Your task to perform on an android device: open app "Spotify: Music and Podcasts" (install if not already installed) and go to login screen Image 0: 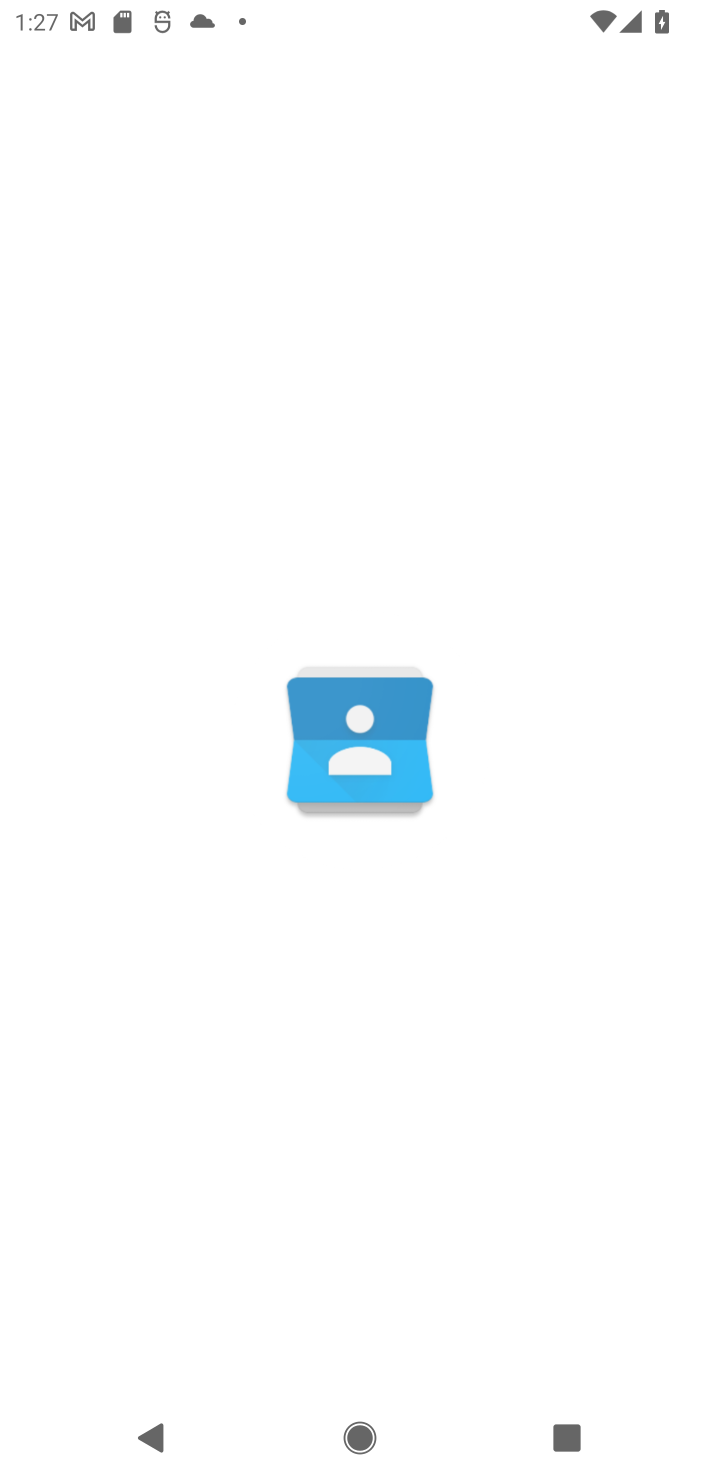
Step 0: press home button
Your task to perform on an android device: open app "Spotify: Music and Podcasts" (install if not already installed) and go to login screen Image 1: 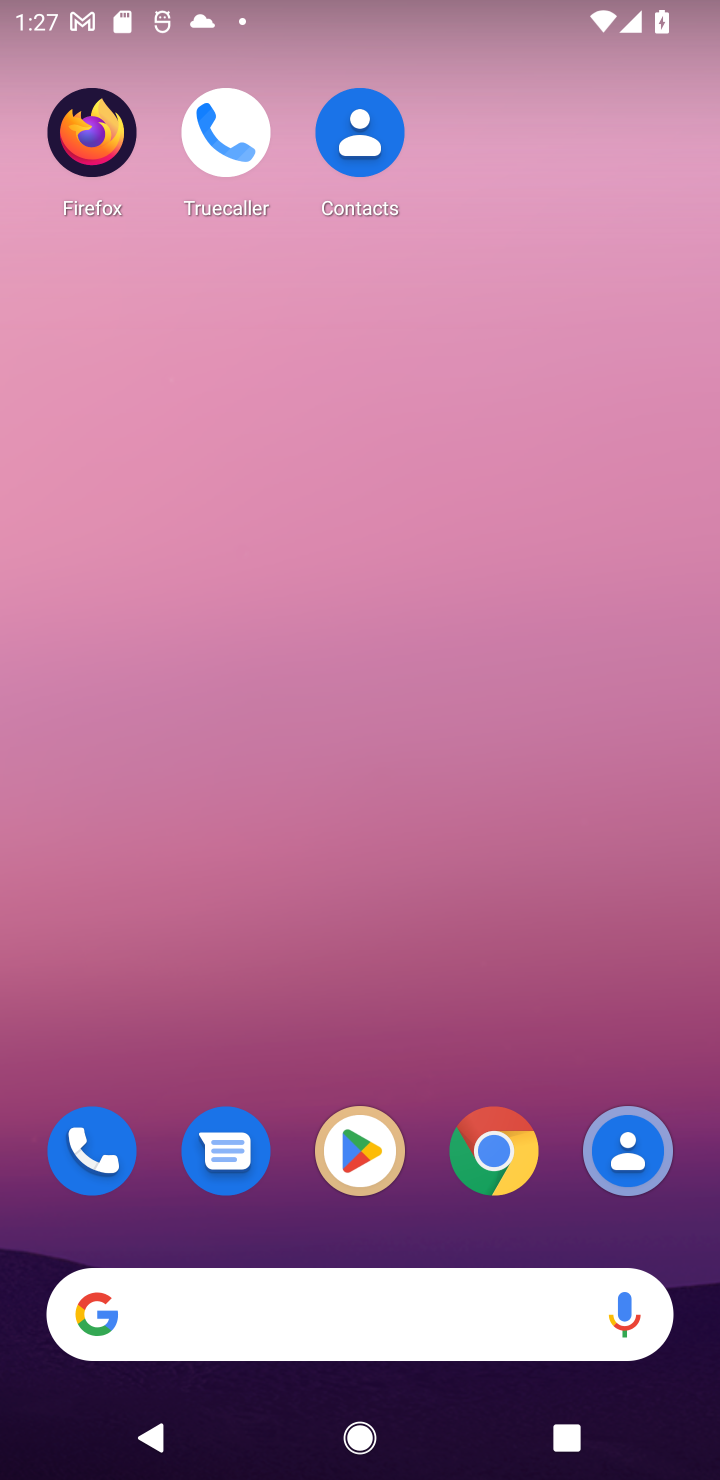
Step 1: click (341, 1138)
Your task to perform on an android device: open app "Spotify: Music and Podcasts" (install if not already installed) and go to login screen Image 2: 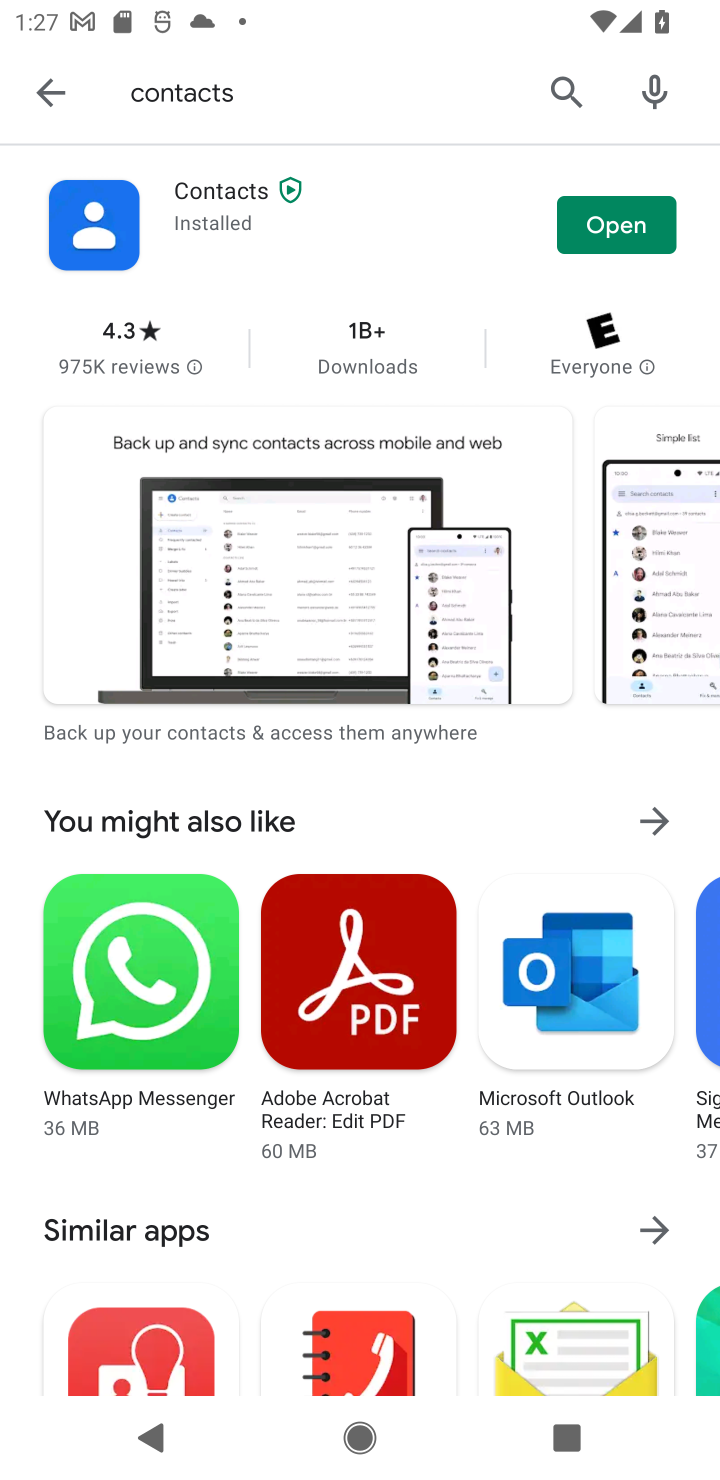
Step 2: click (44, 86)
Your task to perform on an android device: open app "Spotify: Music and Podcasts" (install if not already installed) and go to login screen Image 3: 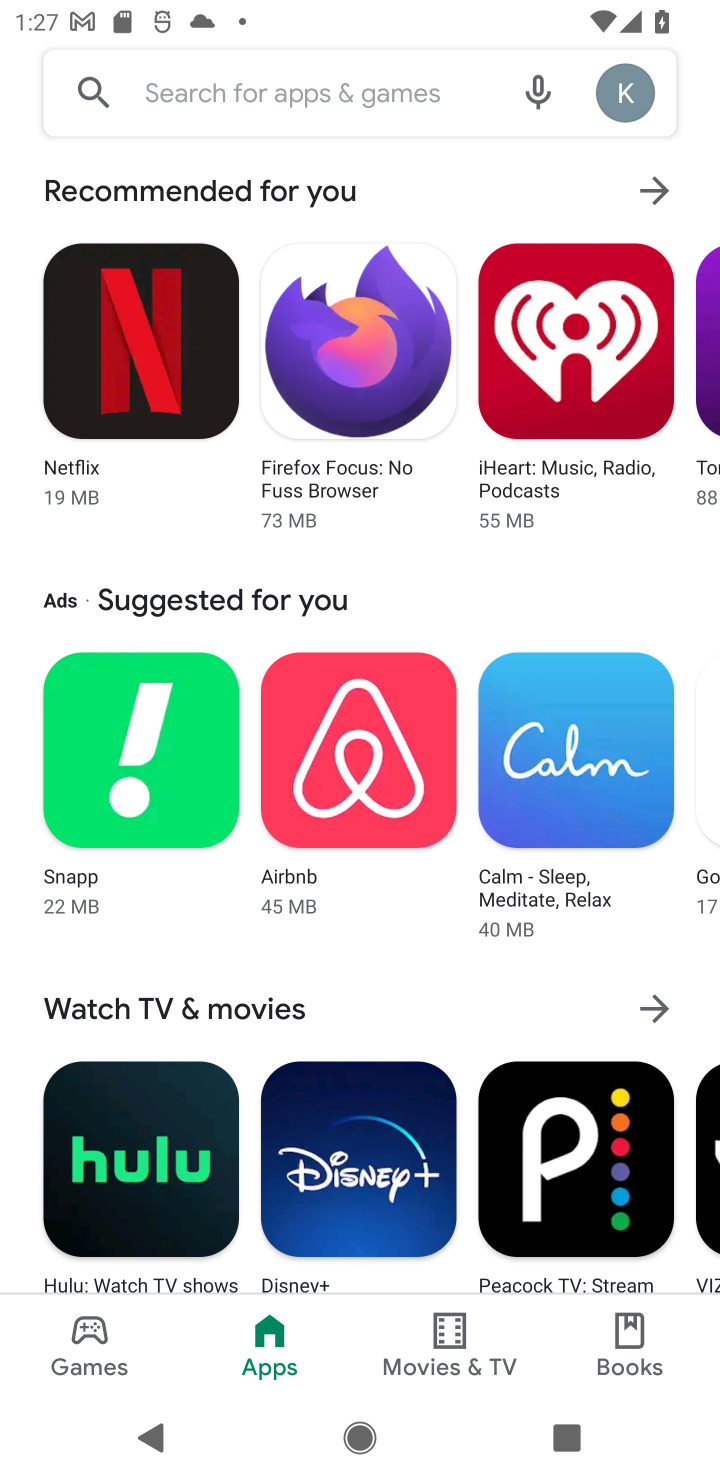
Step 3: click (332, 68)
Your task to perform on an android device: open app "Spotify: Music and Podcasts" (install if not already installed) and go to login screen Image 4: 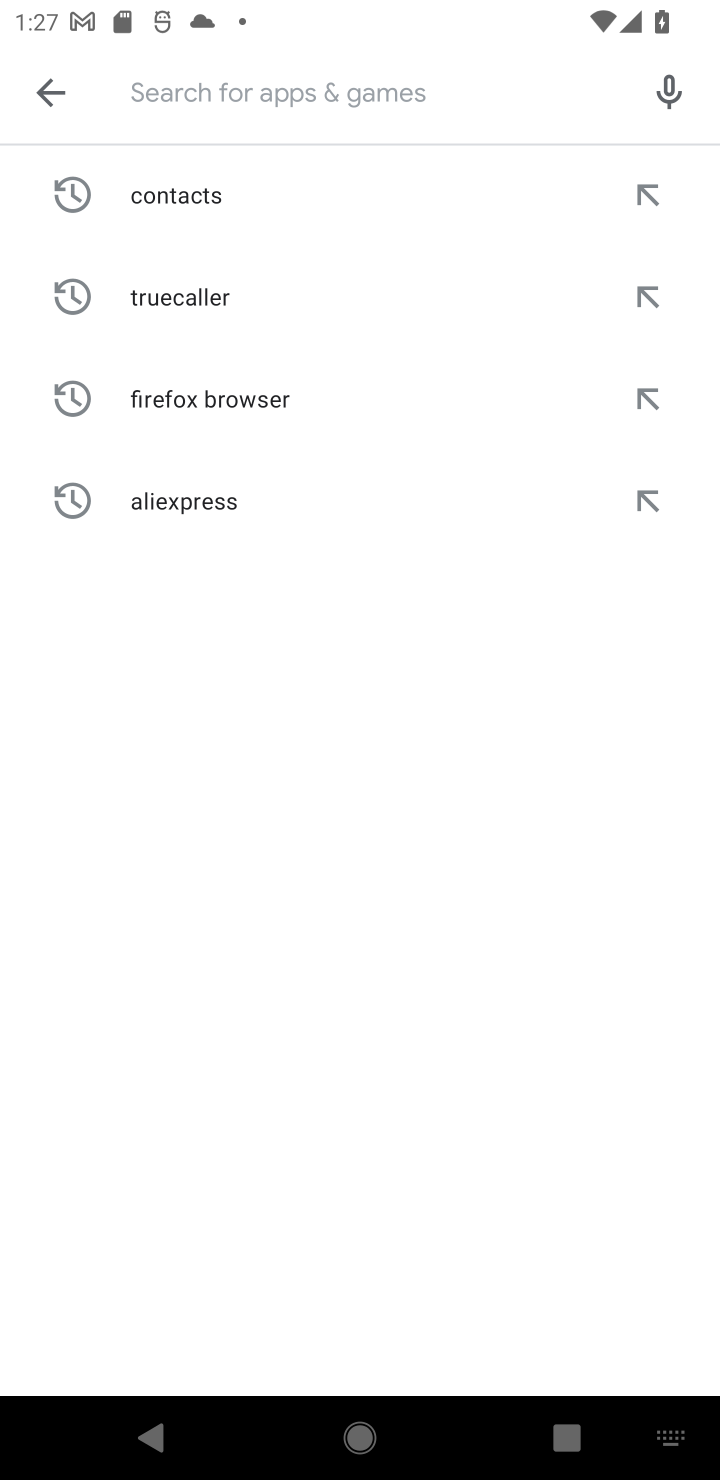
Step 4: type "Spotify: Music and Podcasts"
Your task to perform on an android device: open app "Spotify: Music and Podcasts" (install if not already installed) and go to login screen Image 5: 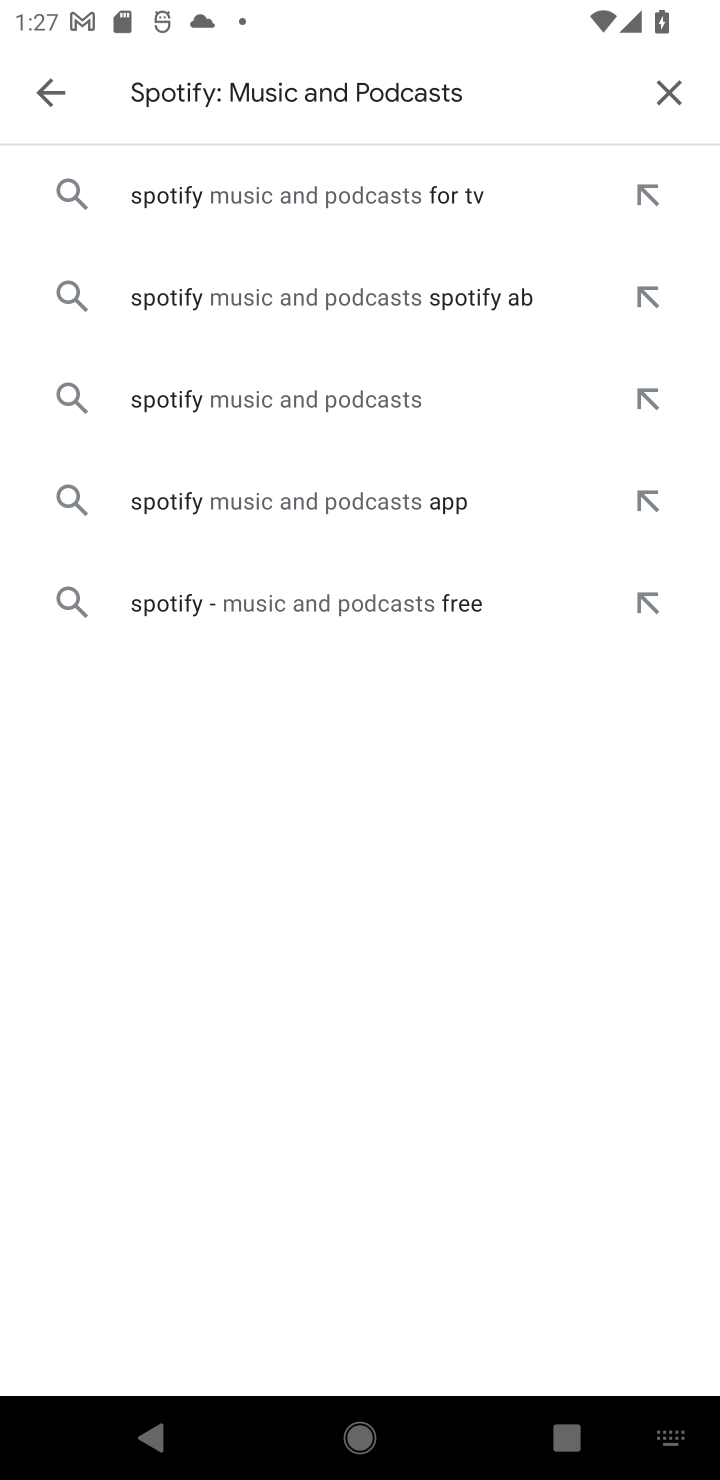
Step 5: click (246, 202)
Your task to perform on an android device: open app "Spotify: Music and Podcasts" (install if not already installed) and go to login screen Image 6: 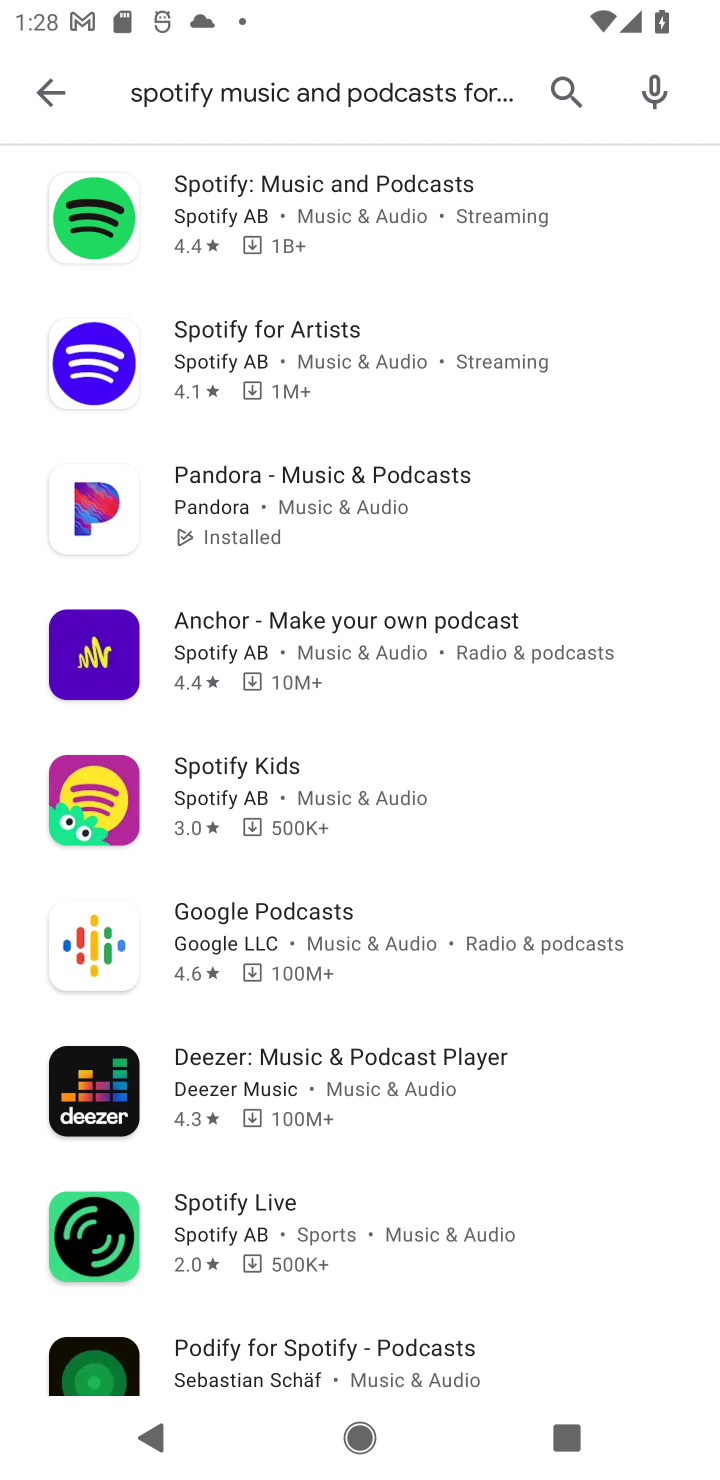
Step 6: click (246, 204)
Your task to perform on an android device: open app "Spotify: Music and Podcasts" (install if not already installed) and go to login screen Image 7: 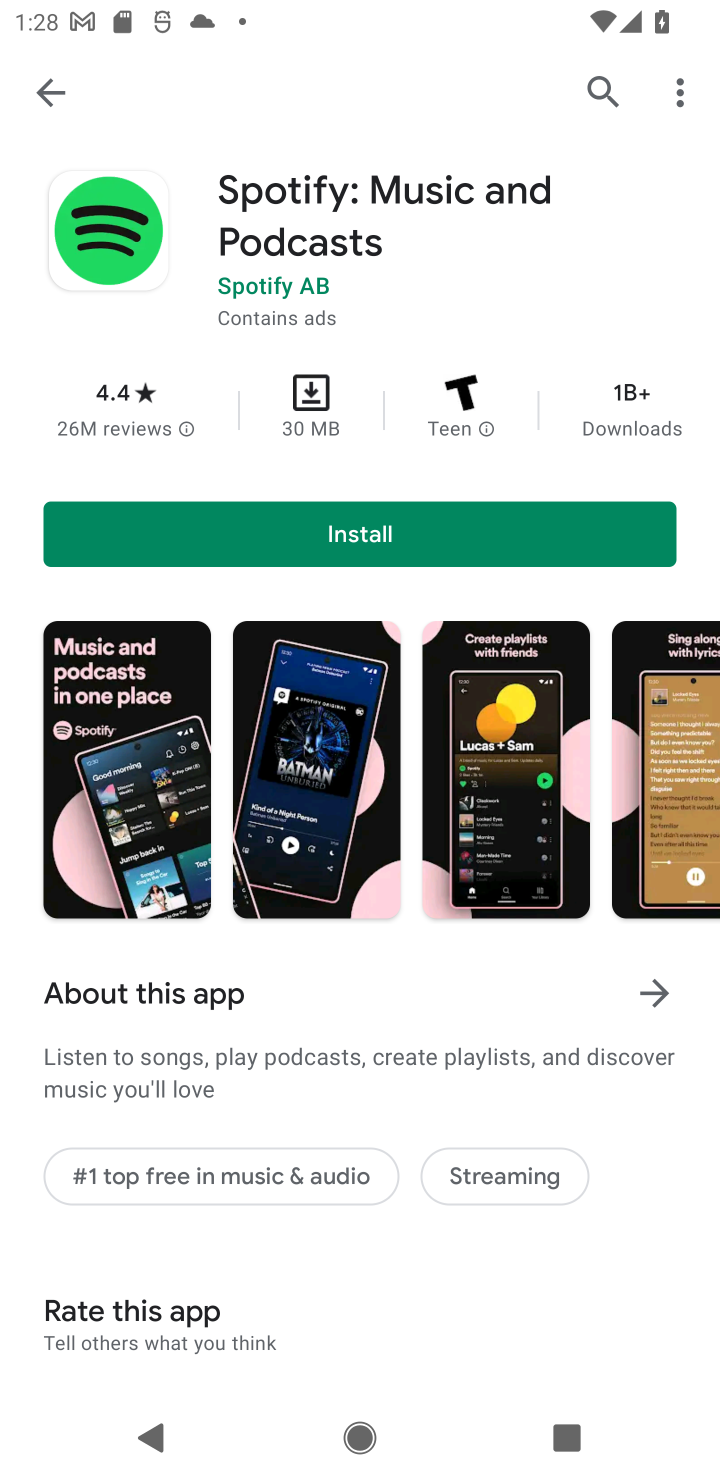
Step 7: click (319, 514)
Your task to perform on an android device: open app "Spotify: Music and Podcasts" (install if not already installed) and go to login screen Image 8: 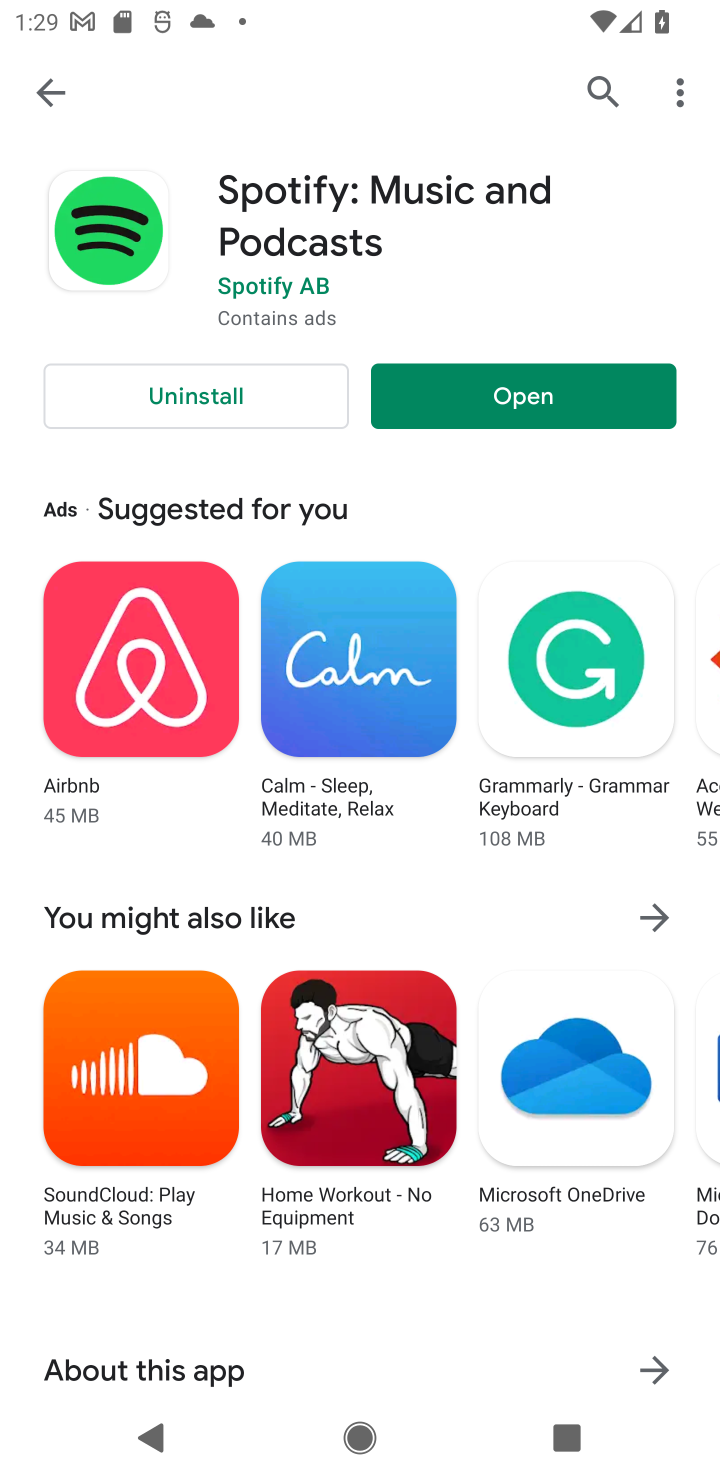
Step 8: click (508, 406)
Your task to perform on an android device: open app "Spotify: Music and Podcasts" (install if not already installed) and go to login screen Image 9: 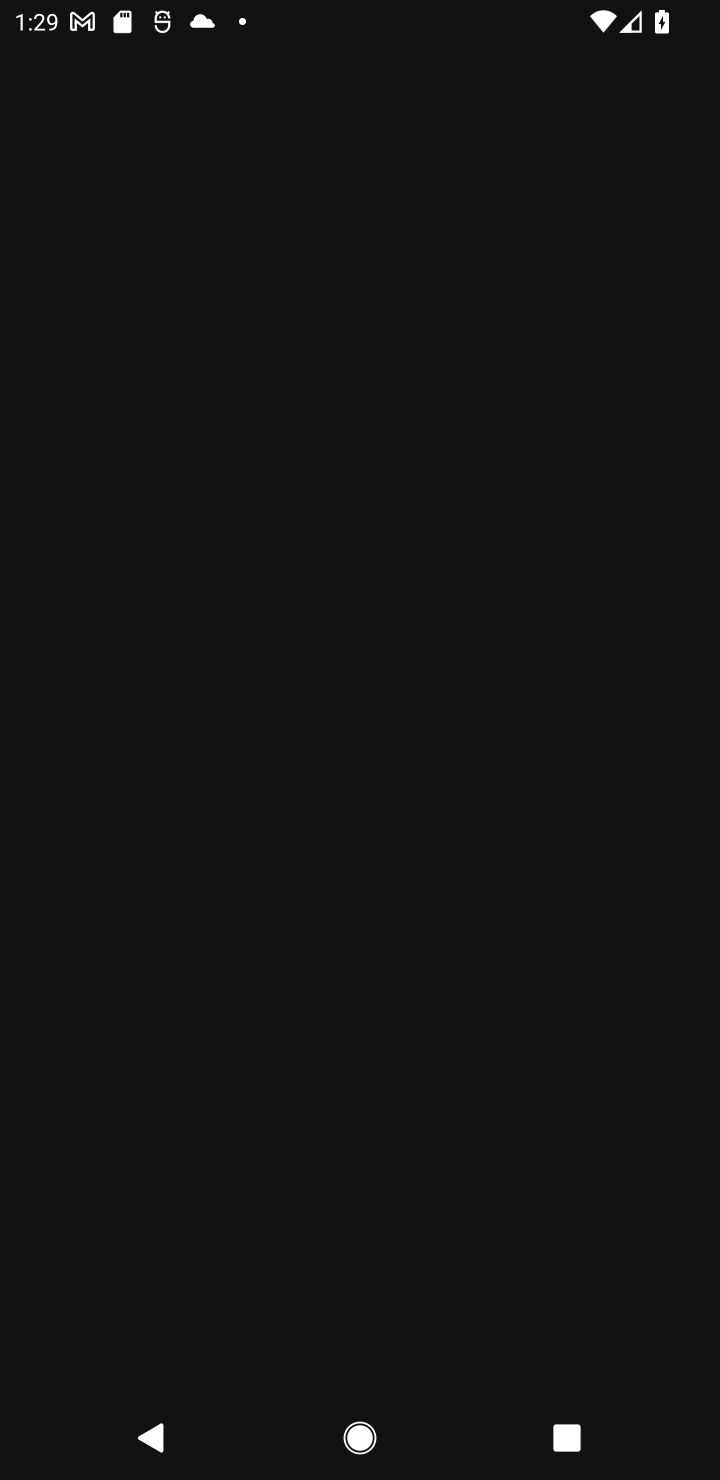
Step 9: task complete